Your task to perform on an android device: open app "Move to iOS" (install if not already installed) Image 0: 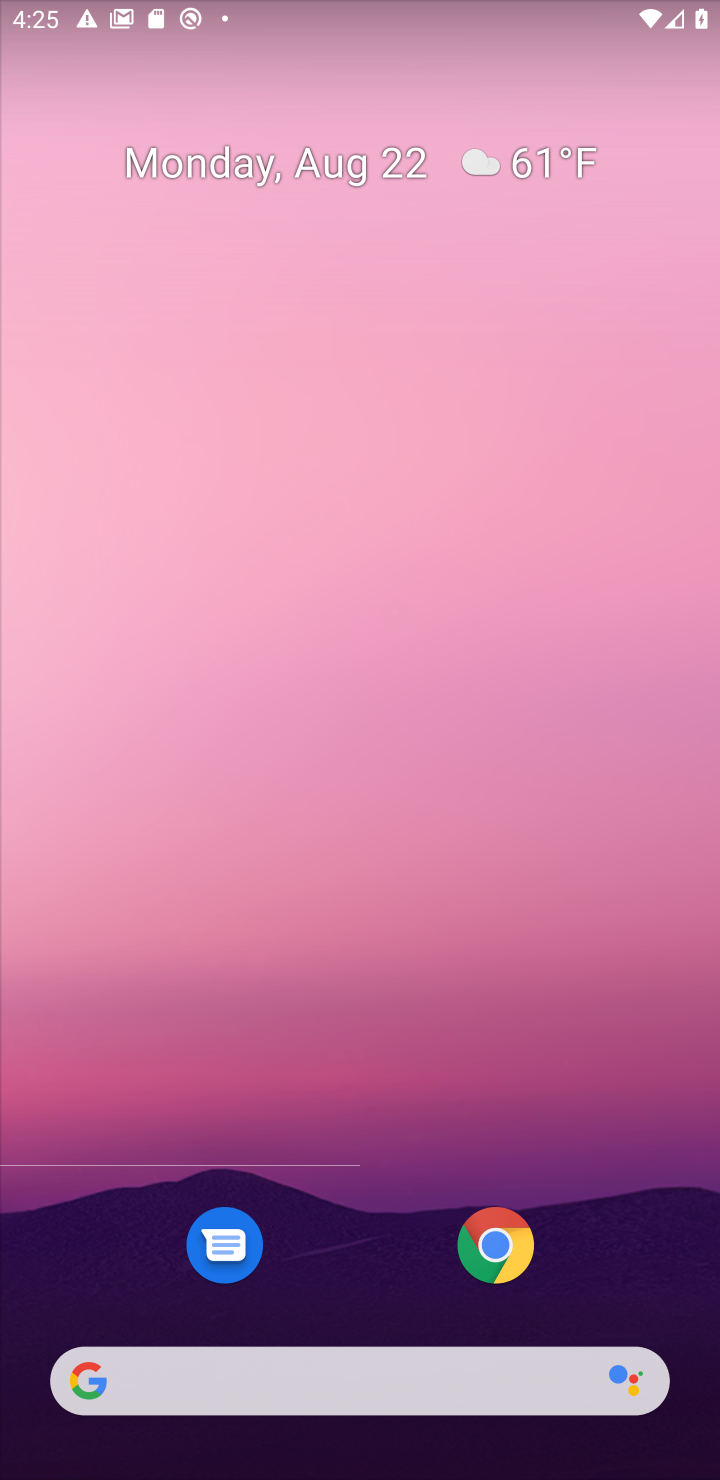
Step 0: press home button
Your task to perform on an android device: open app "Move to iOS" (install if not already installed) Image 1: 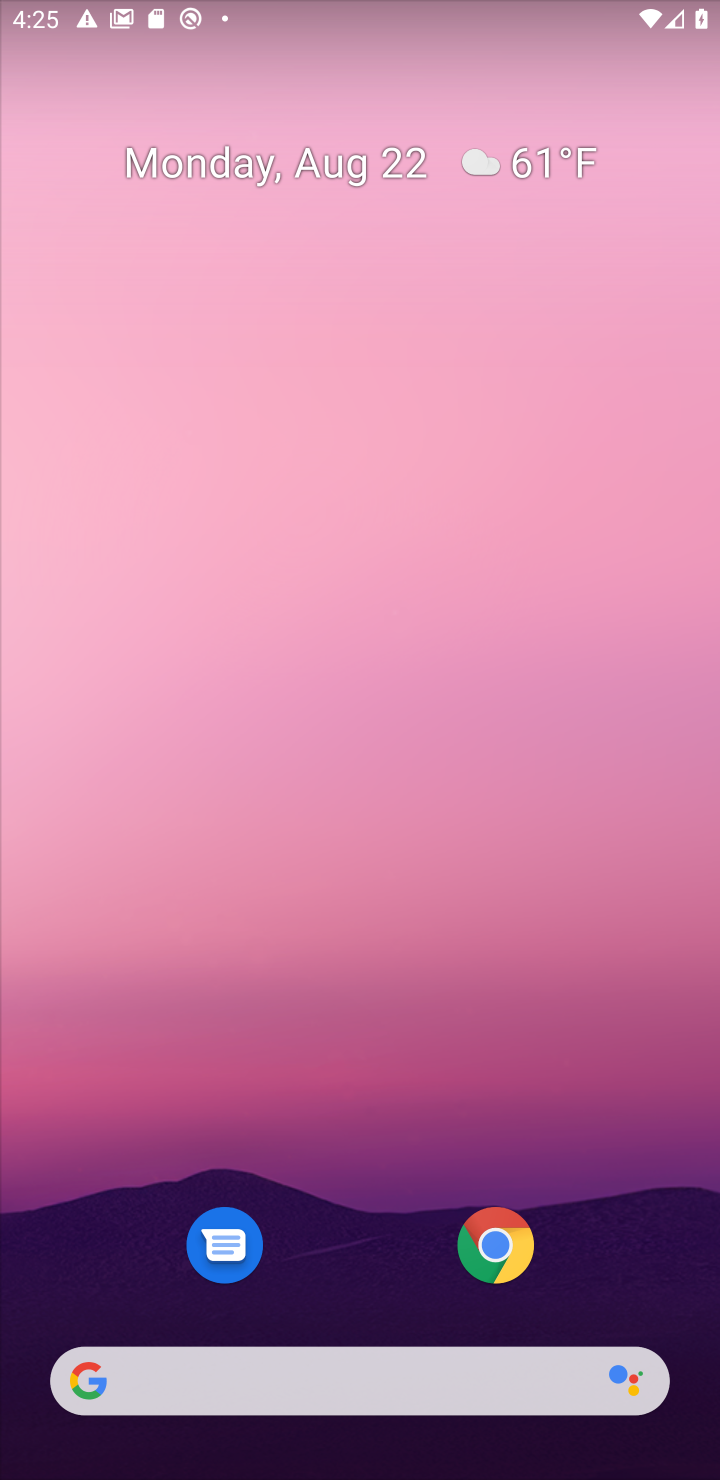
Step 1: drag from (604, 1197) to (638, 139)
Your task to perform on an android device: open app "Move to iOS" (install if not already installed) Image 2: 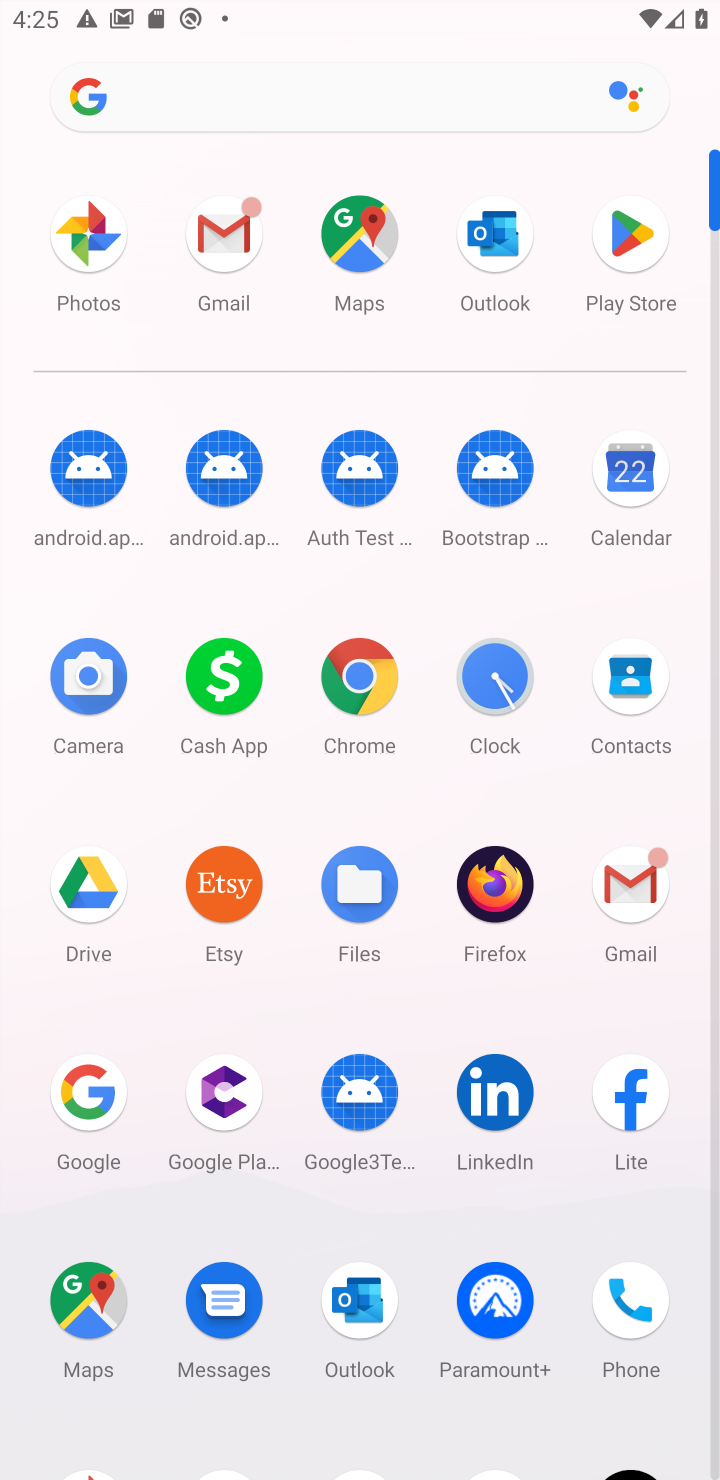
Step 2: click (620, 224)
Your task to perform on an android device: open app "Move to iOS" (install if not already installed) Image 3: 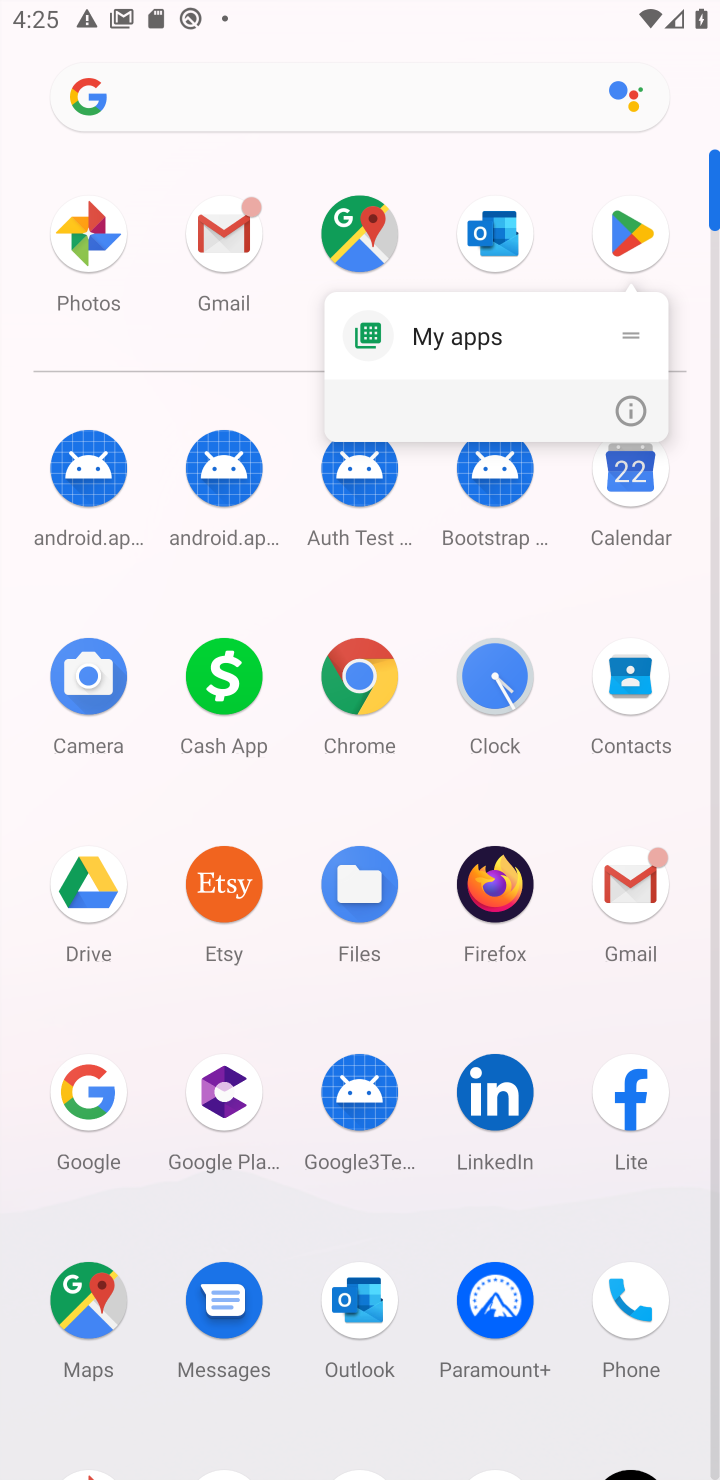
Step 3: click (643, 214)
Your task to perform on an android device: open app "Move to iOS" (install if not already installed) Image 4: 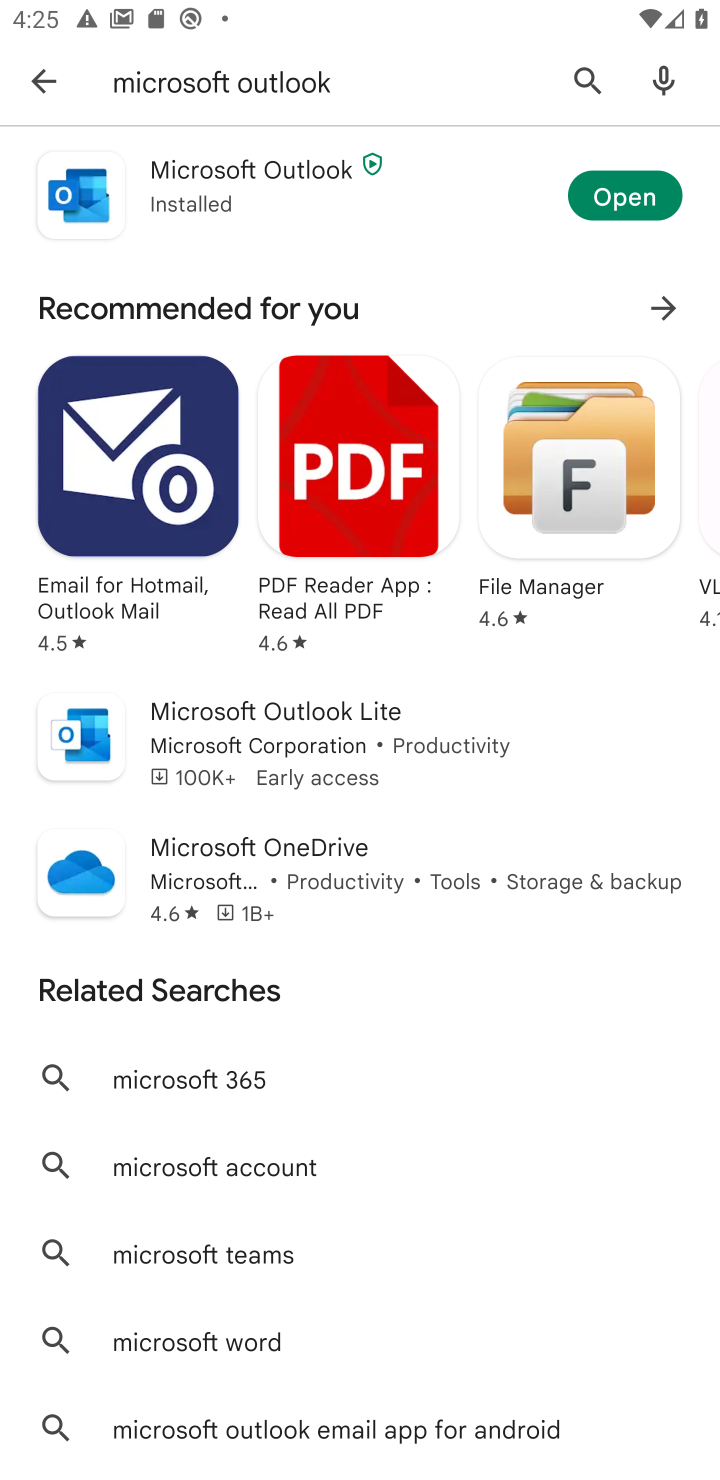
Step 4: press back button
Your task to perform on an android device: open app "Move to iOS" (install if not already installed) Image 5: 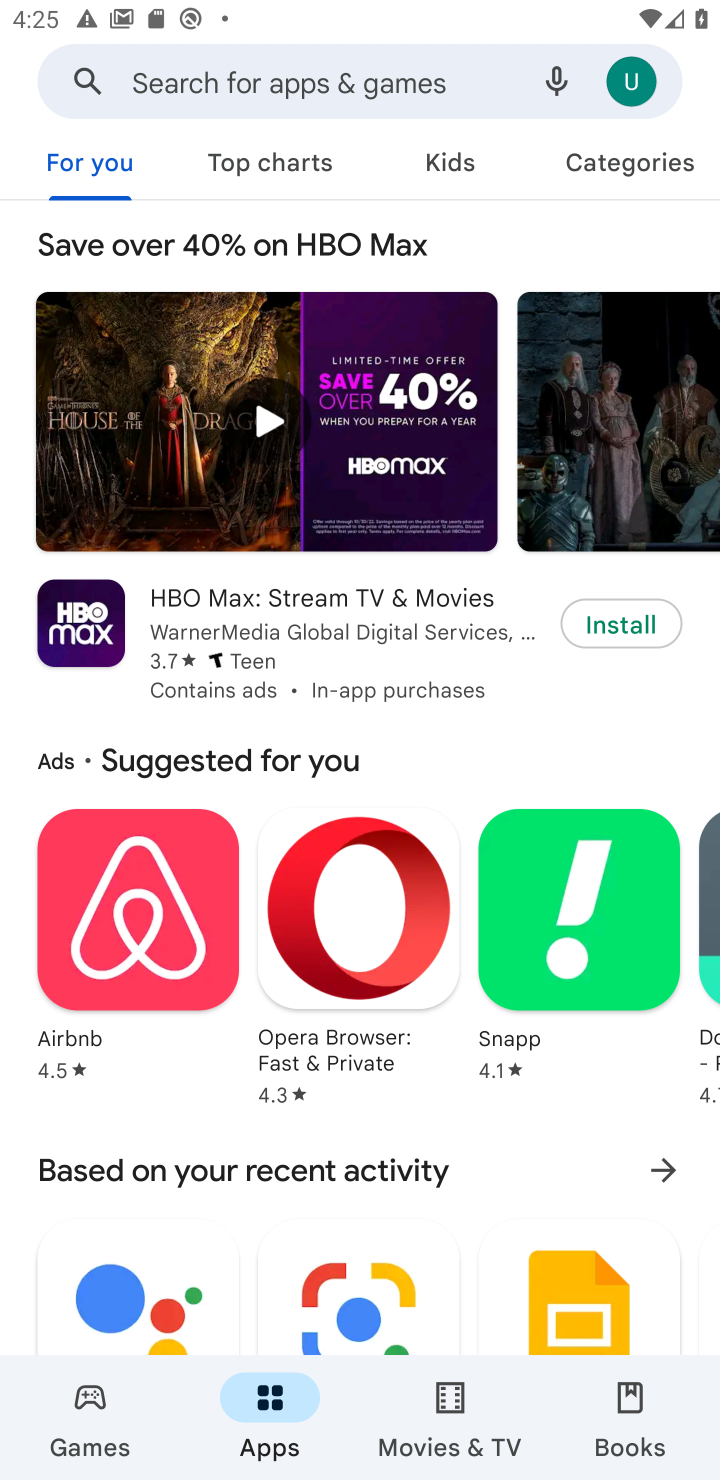
Step 5: click (333, 80)
Your task to perform on an android device: open app "Move to iOS" (install if not already installed) Image 6: 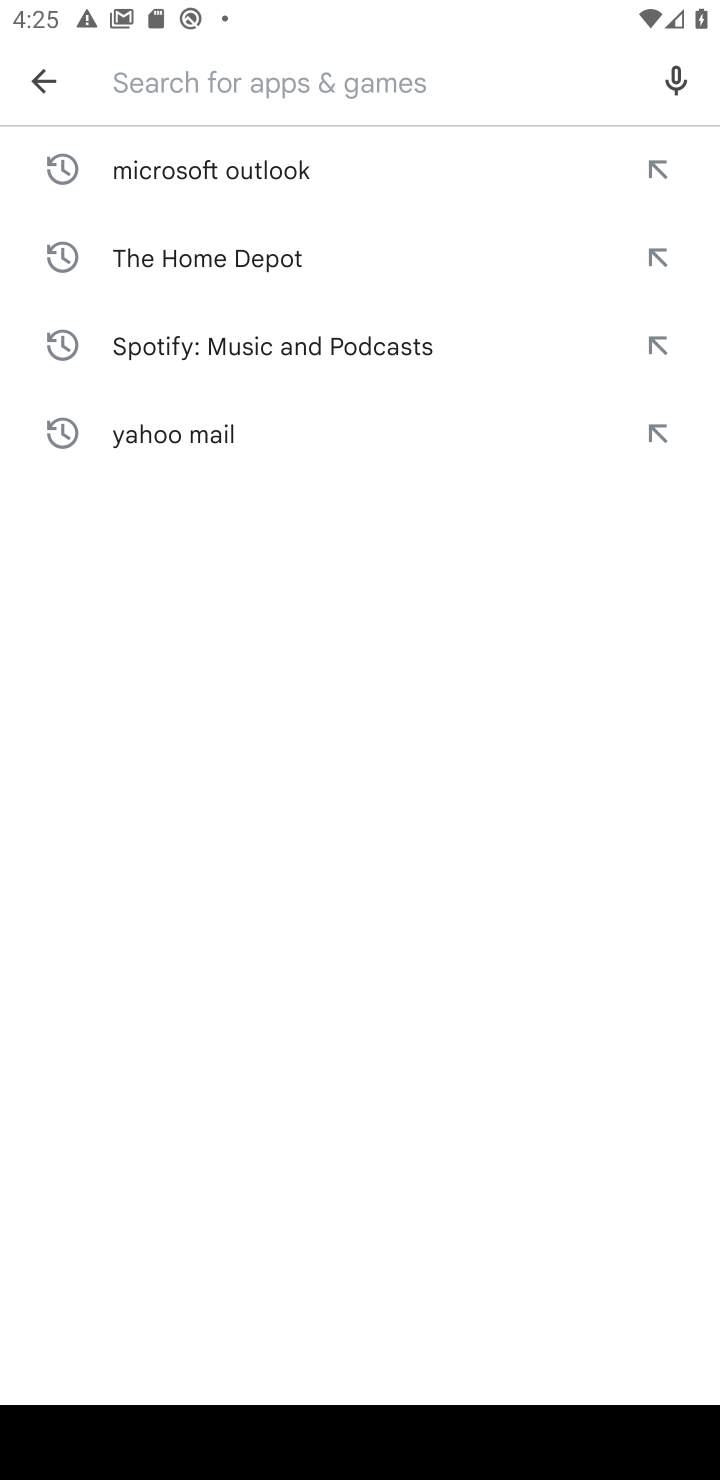
Step 6: type "Move to iOS"
Your task to perform on an android device: open app "Move to iOS" (install if not already installed) Image 7: 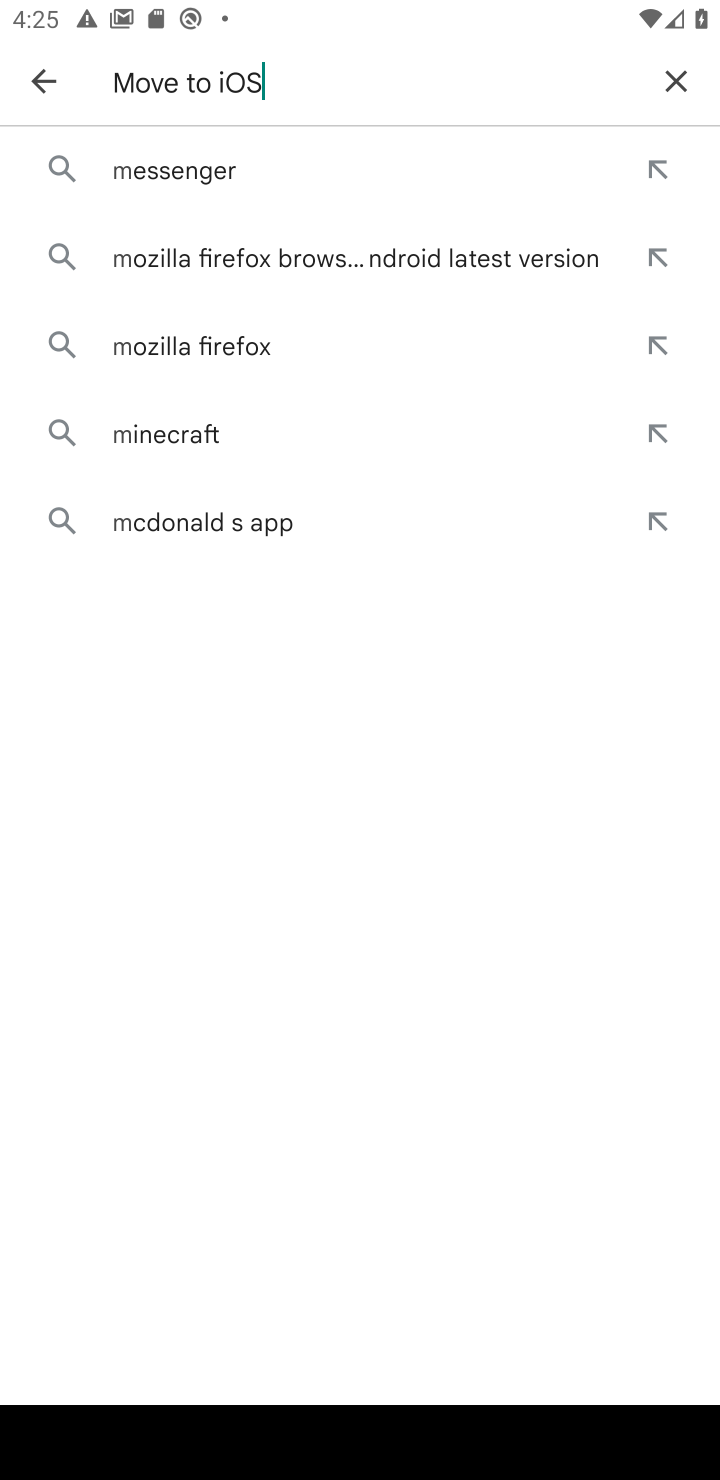
Step 7: press enter
Your task to perform on an android device: open app "Move to iOS" (install if not already installed) Image 8: 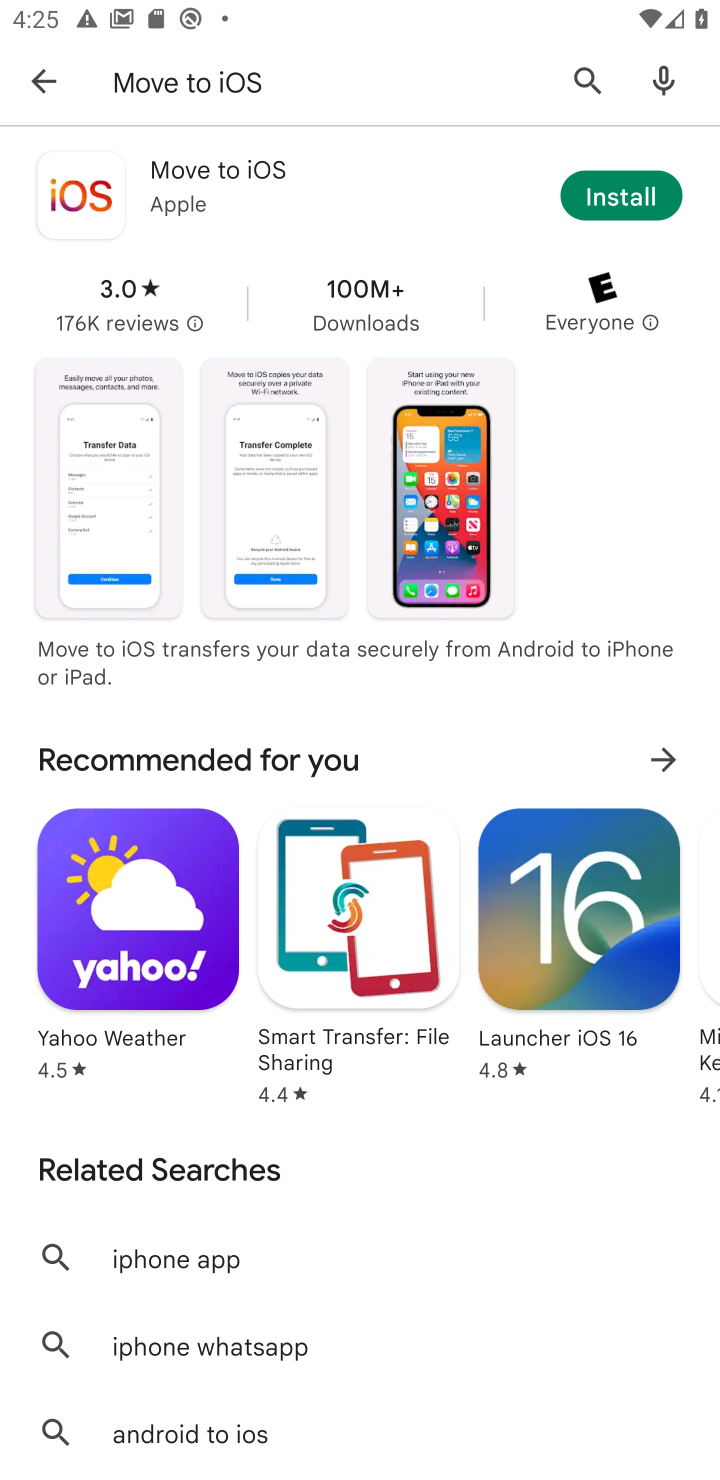
Step 8: click (624, 190)
Your task to perform on an android device: open app "Move to iOS" (install if not already installed) Image 9: 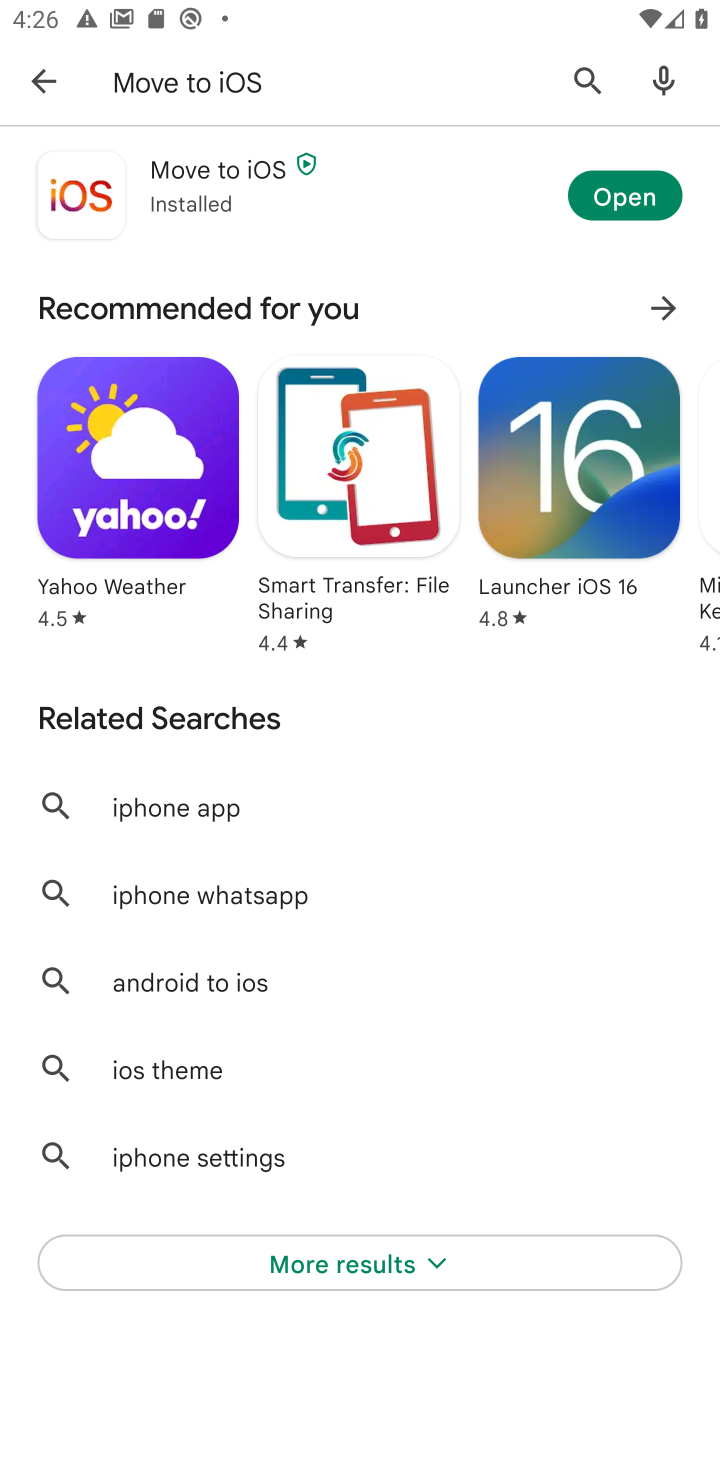
Step 9: click (601, 204)
Your task to perform on an android device: open app "Move to iOS" (install if not already installed) Image 10: 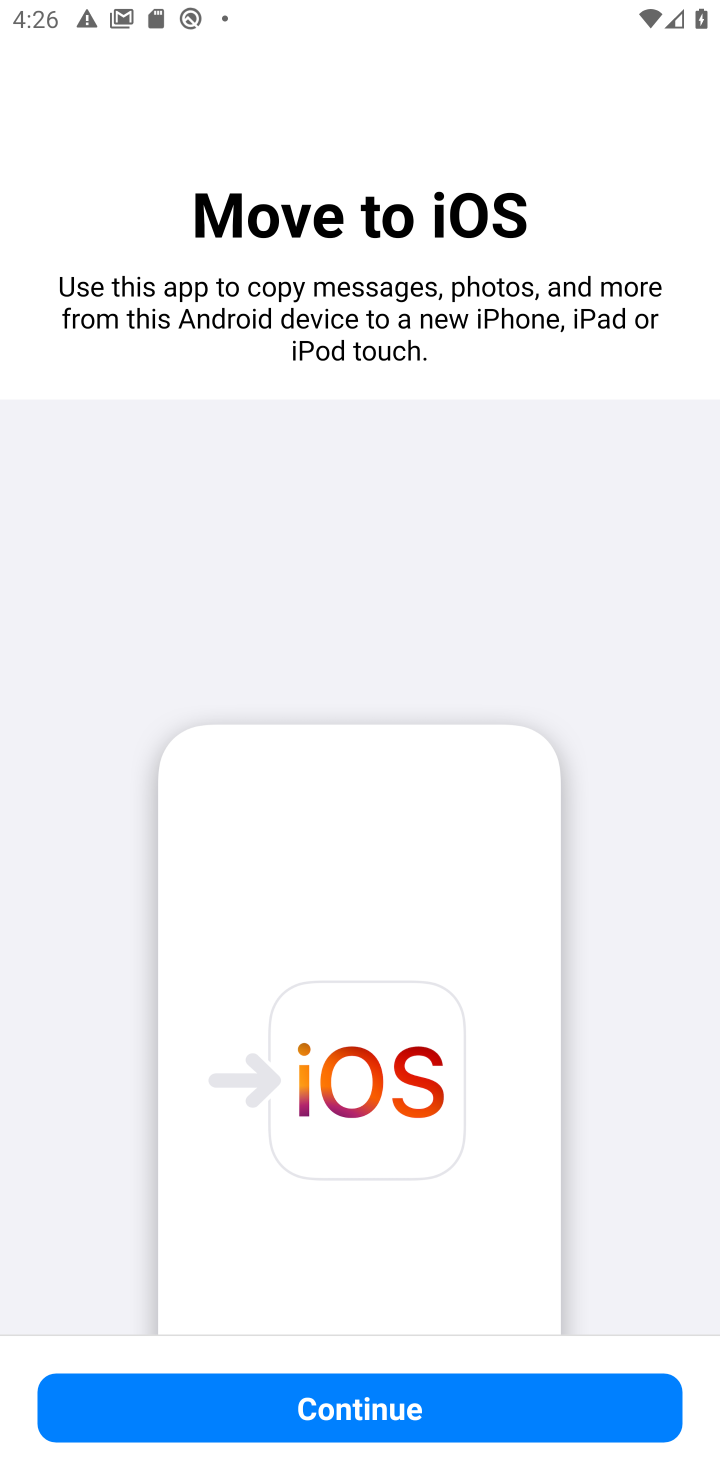
Step 10: task complete